Your task to perform on an android device: Open Maps and search for coffee Image 0: 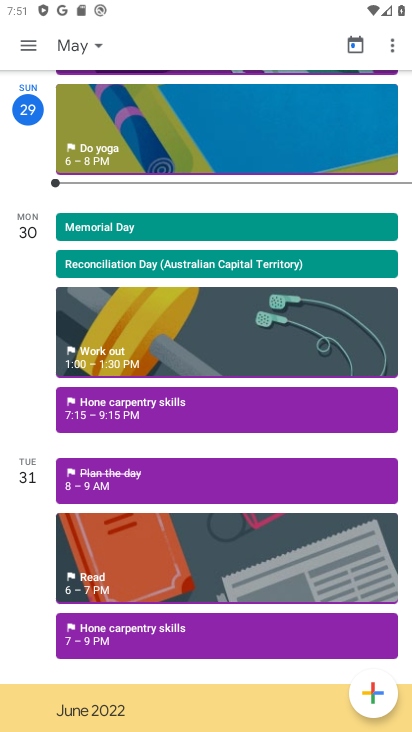
Step 0: press home button
Your task to perform on an android device: Open Maps and search for coffee Image 1: 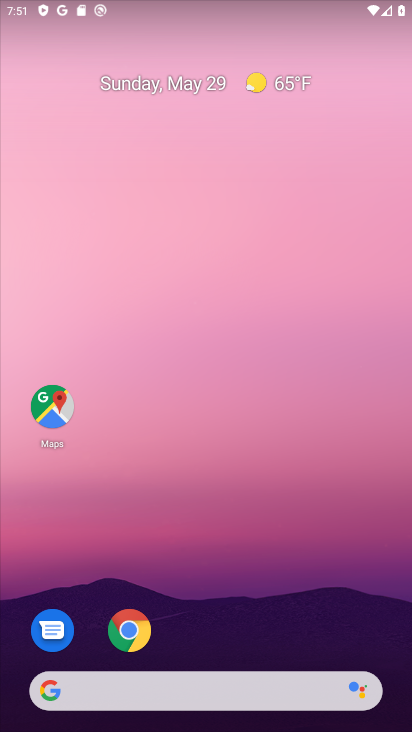
Step 1: drag from (211, 727) to (199, 72)
Your task to perform on an android device: Open Maps and search for coffee Image 2: 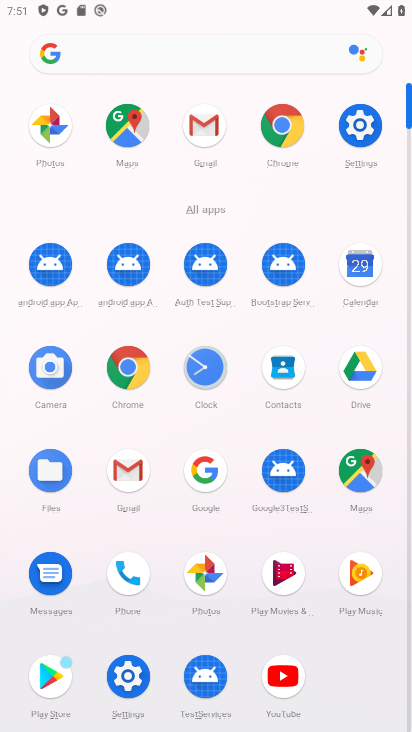
Step 2: click (361, 464)
Your task to perform on an android device: Open Maps and search for coffee Image 3: 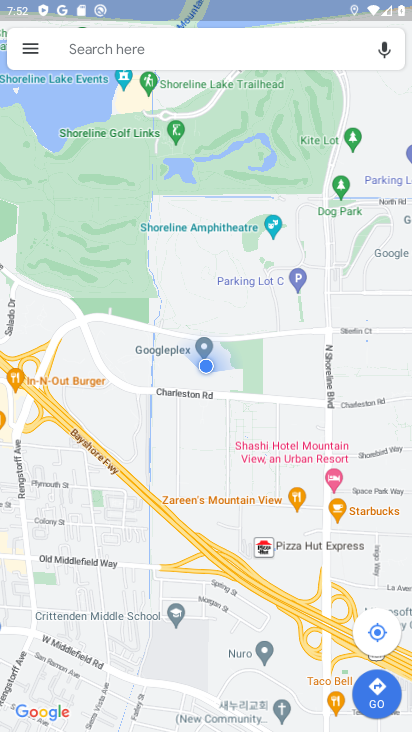
Step 3: click (106, 49)
Your task to perform on an android device: Open Maps and search for coffee Image 4: 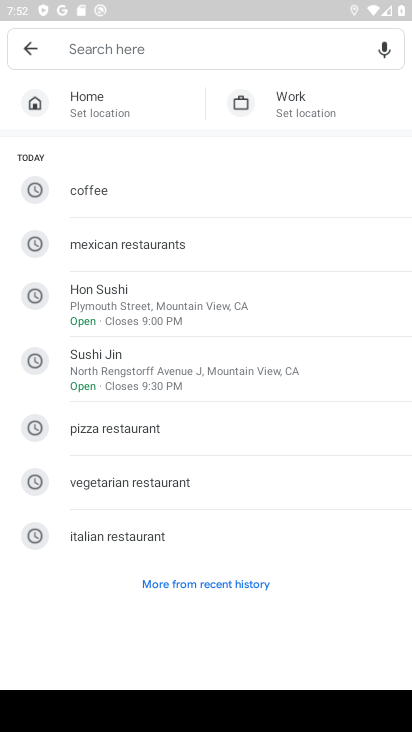
Step 4: type "coffee"
Your task to perform on an android device: Open Maps and search for coffee Image 5: 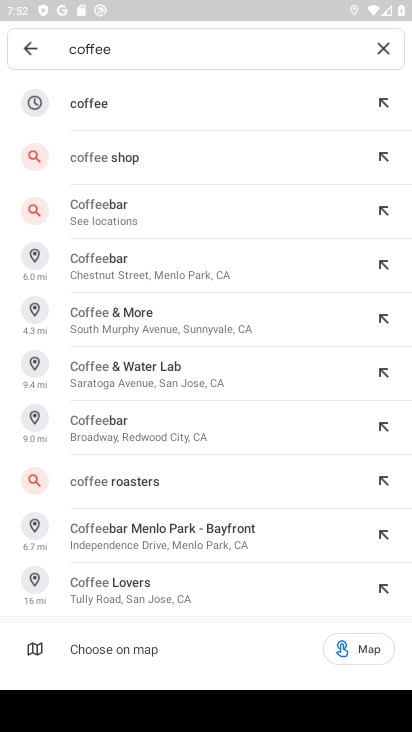
Step 5: click (93, 97)
Your task to perform on an android device: Open Maps and search for coffee Image 6: 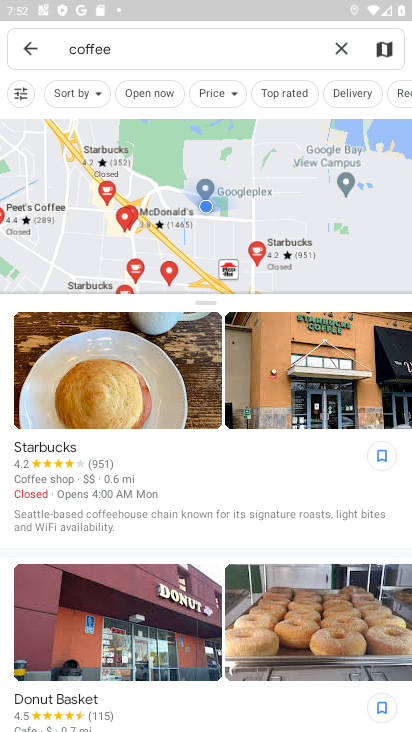
Step 6: task complete